Your task to perform on an android device: turn off wifi Image 0: 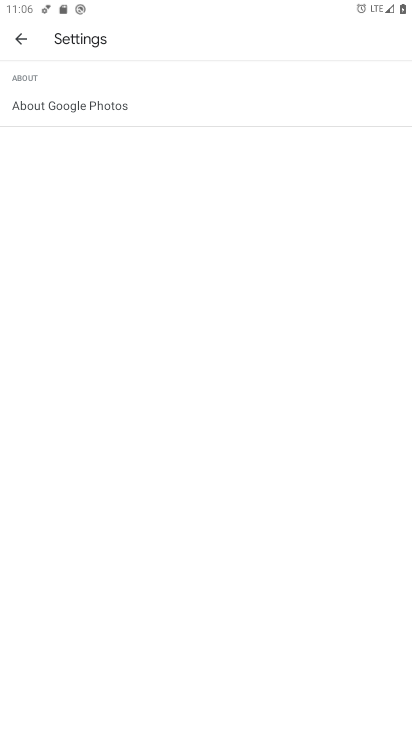
Step 0: press home button
Your task to perform on an android device: turn off wifi Image 1: 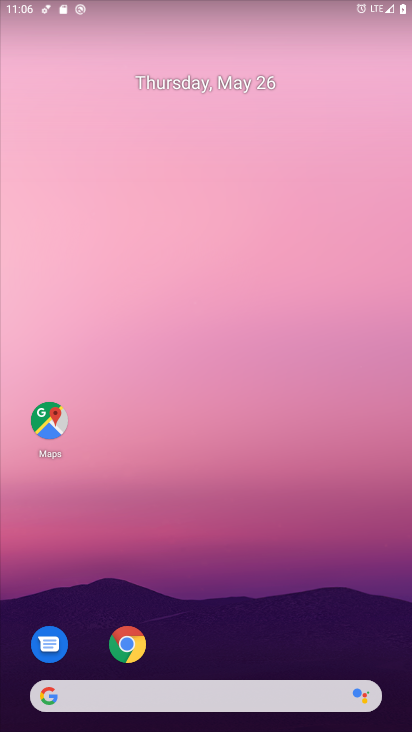
Step 1: drag from (359, 629) to (356, 277)
Your task to perform on an android device: turn off wifi Image 2: 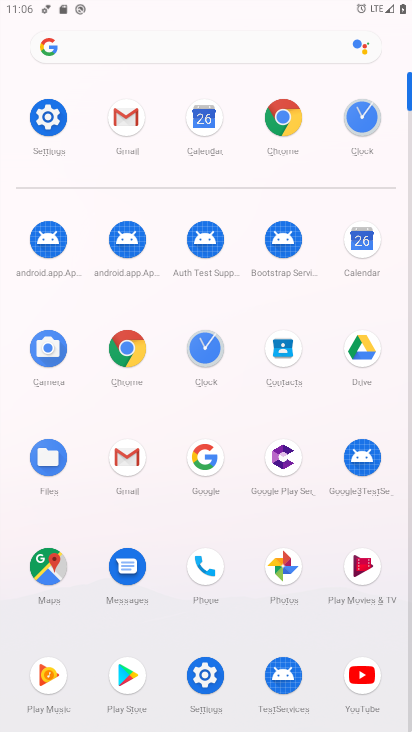
Step 2: click (46, 133)
Your task to perform on an android device: turn off wifi Image 3: 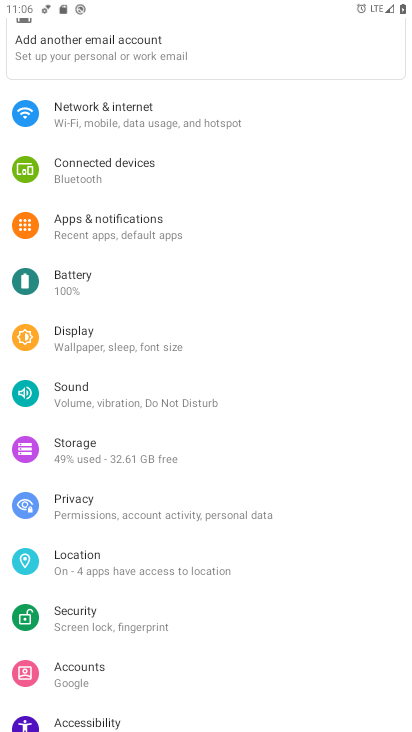
Step 3: drag from (347, 314) to (349, 421)
Your task to perform on an android device: turn off wifi Image 4: 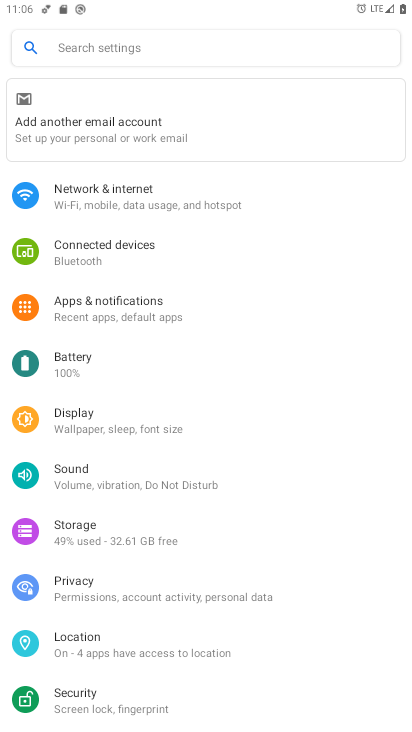
Step 4: drag from (343, 297) to (336, 416)
Your task to perform on an android device: turn off wifi Image 5: 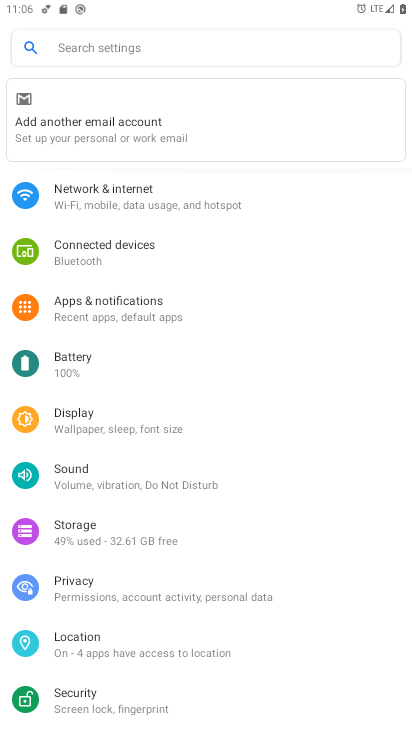
Step 5: drag from (326, 496) to (327, 420)
Your task to perform on an android device: turn off wifi Image 6: 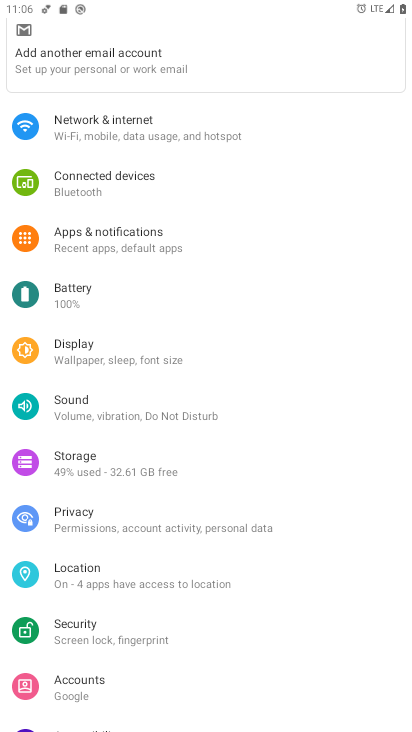
Step 6: drag from (336, 298) to (331, 463)
Your task to perform on an android device: turn off wifi Image 7: 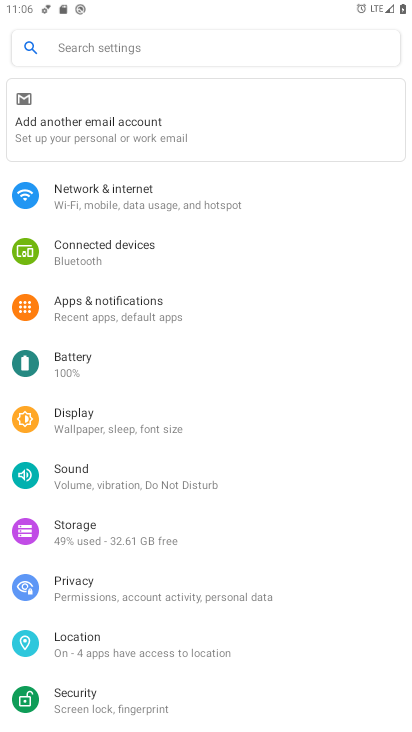
Step 7: click (212, 195)
Your task to perform on an android device: turn off wifi Image 8: 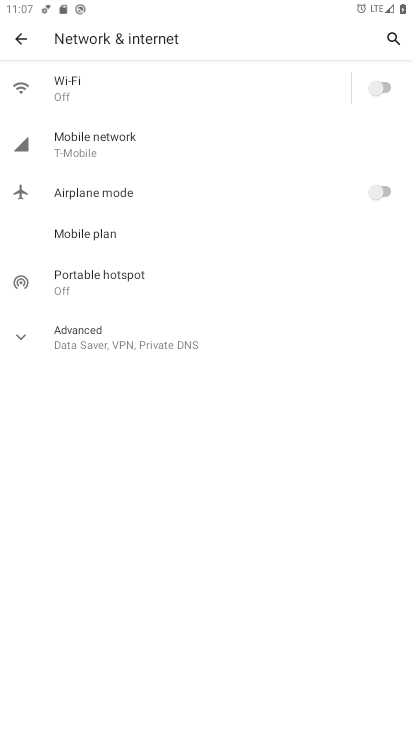
Step 8: task complete